Your task to perform on an android device: delete the emails in spam in the gmail app Image 0: 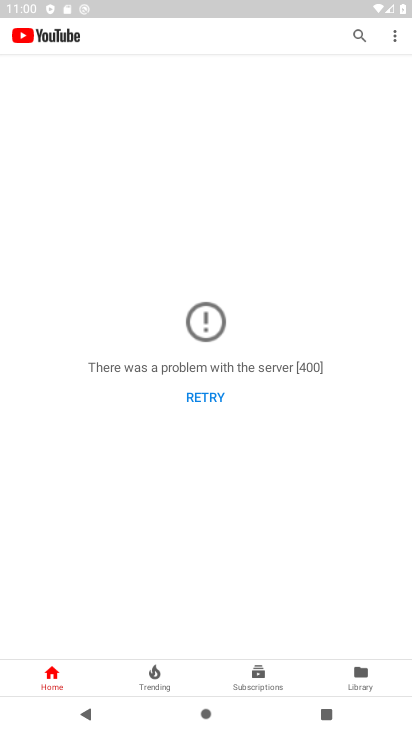
Step 0: press home button
Your task to perform on an android device: delete the emails in spam in the gmail app Image 1: 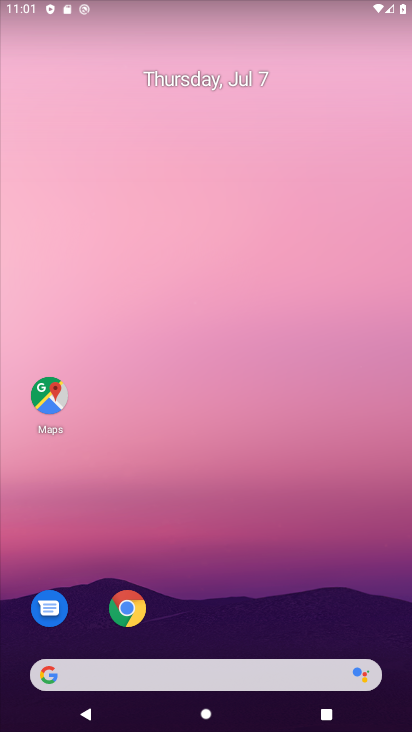
Step 1: drag from (255, 615) to (166, 77)
Your task to perform on an android device: delete the emails in spam in the gmail app Image 2: 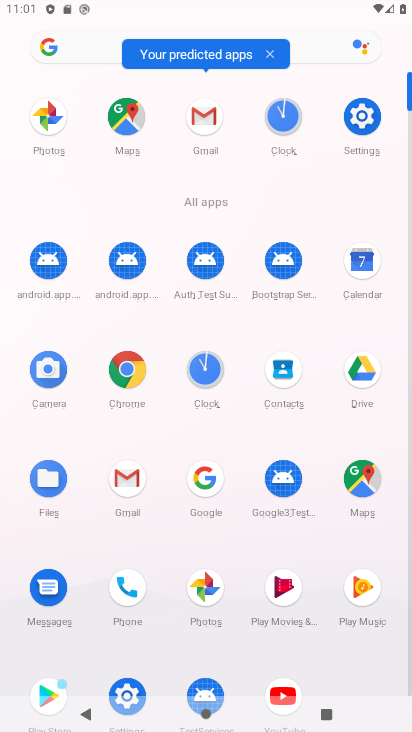
Step 2: click (203, 125)
Your task to perform on an android device: delete the emails in spam in the gmail app Image 3: 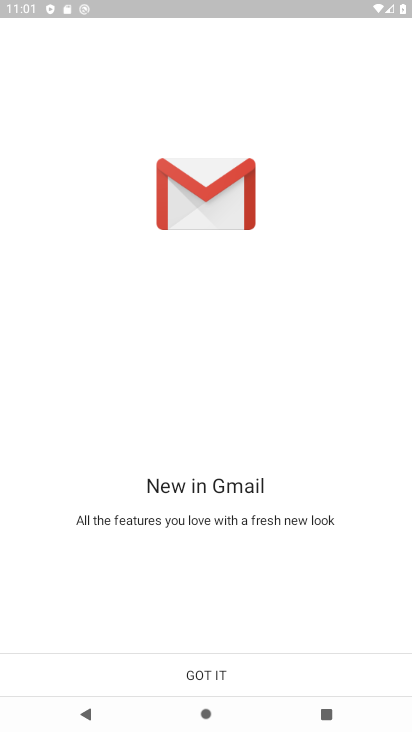
Step 3: click (214, 661)
Your task to perform on an android device: delete the emails in spam in the gmail app Image 4: 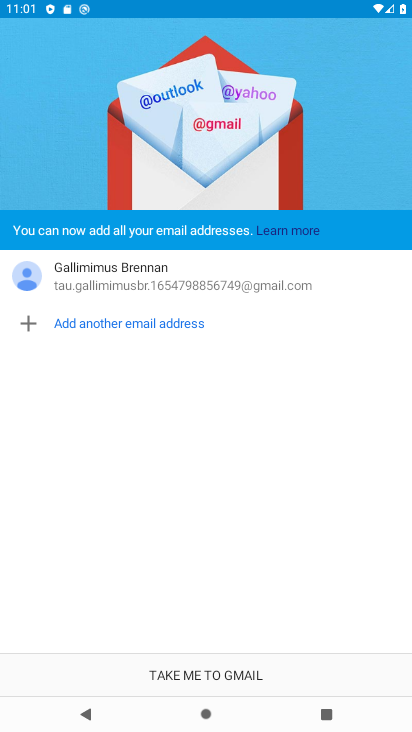
Step 4: click (214, 661)
Your task to perform on an android device: delete the emails in spam in the gmail app Image 5: 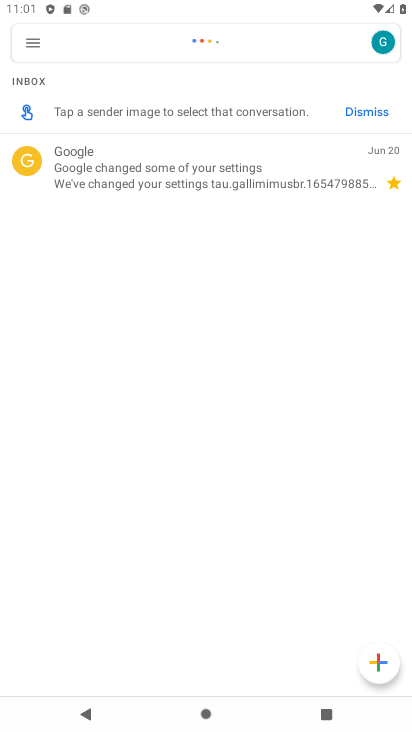
Step 5: click (269, 144)
Your task to perform on an android device: delete the emails in spam in the gmail app Image 6: 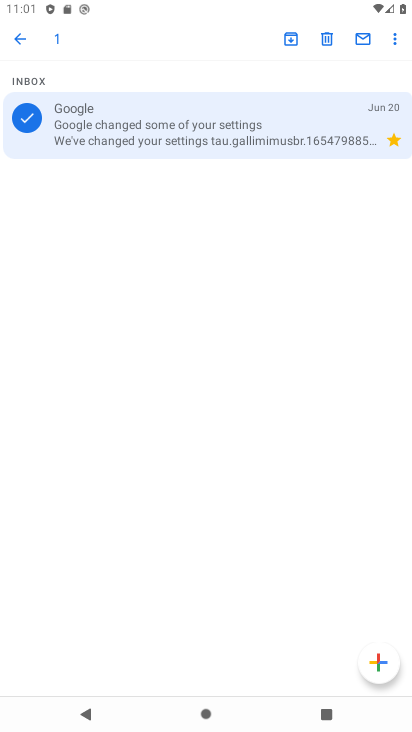
Step 6: click (324, 53)
Your task to perform on an android device: delete the emails in spam in the gmail app Image 7: 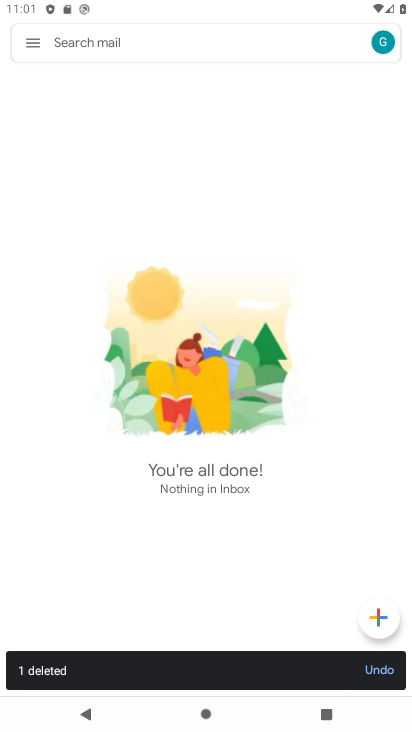
Step 7: task complete